Your task to perform on an android device: delete a single message in the gmail app Image 0: 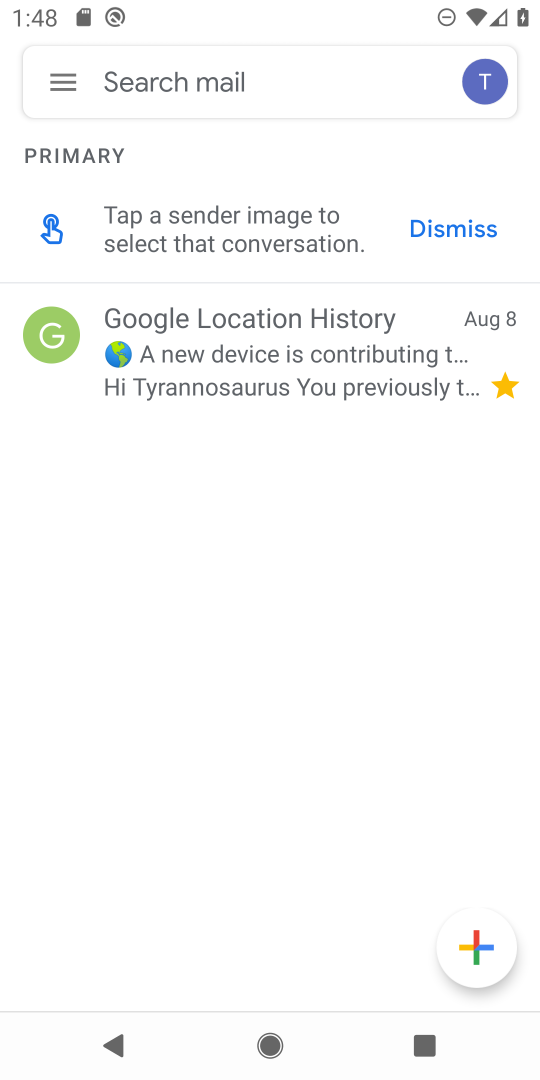
Step 0: press home button
Your task to perform on an android device: delete a single message in the gmail app Image 1: 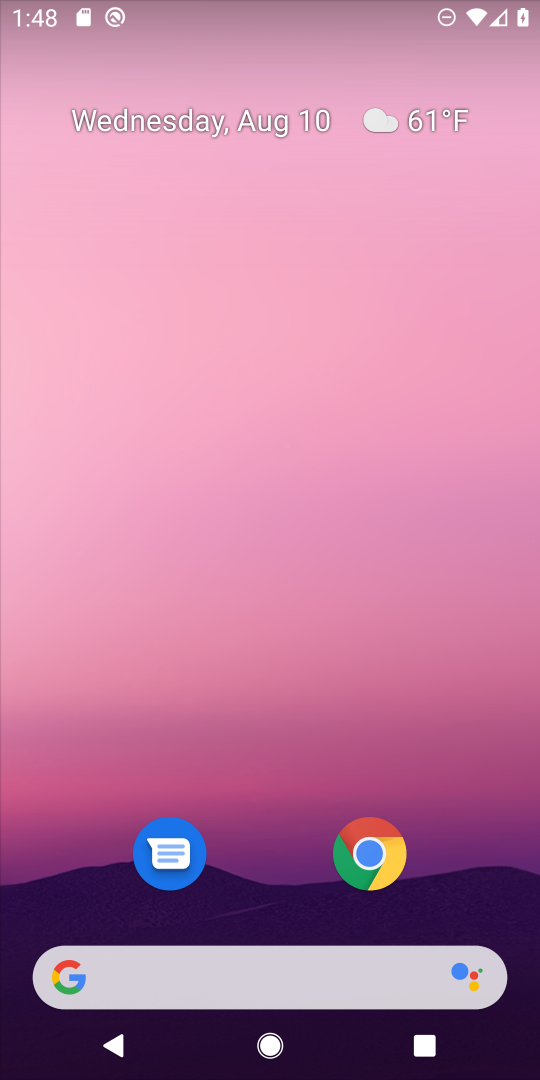
Step 1: drag from (328, 700) to (359, 243)
Your task to perform on an android device: delete a single message in the gmail app Image 2: 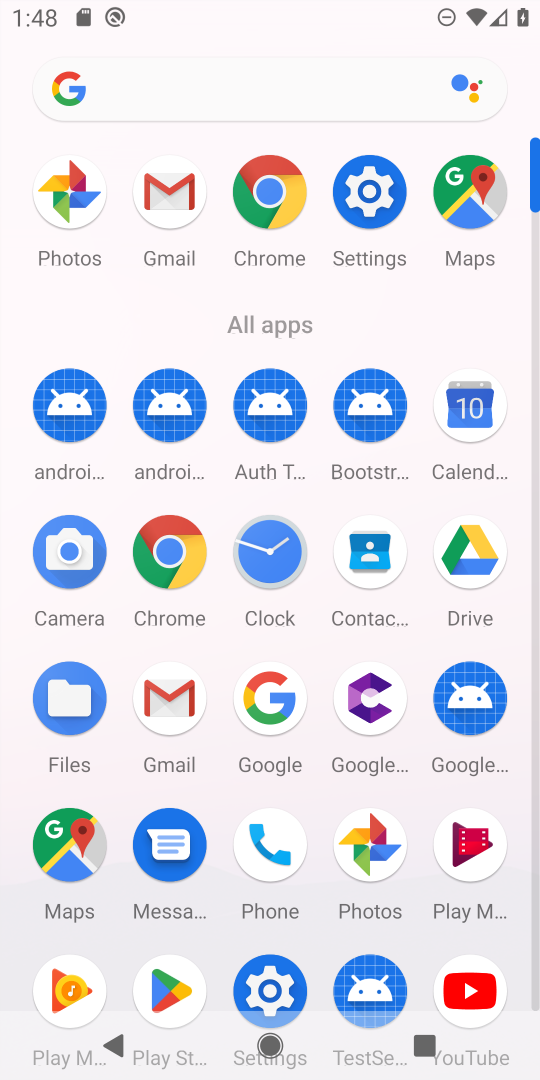
Step 2: click (174, 679)
Your task to perform on an android device: delete a single message in the gmail app Image 3: 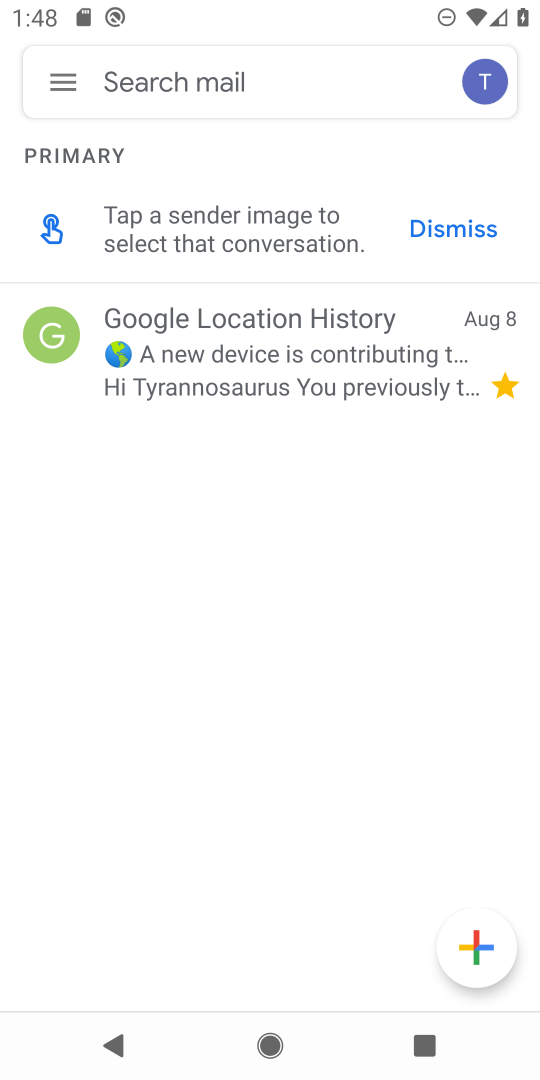
Step 3: click (51, 349)
Your task to perform on an android device: delete a single message in the gmail app Image 4: 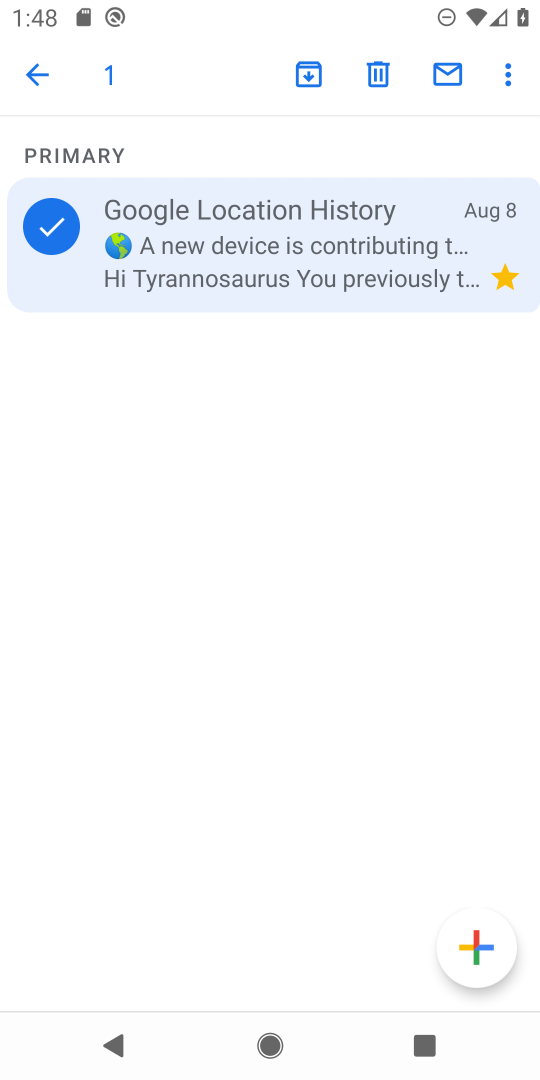
Step 4: click (378, 75)
Your task to perform on an android device: delete a single message in the gmail app Image 5: 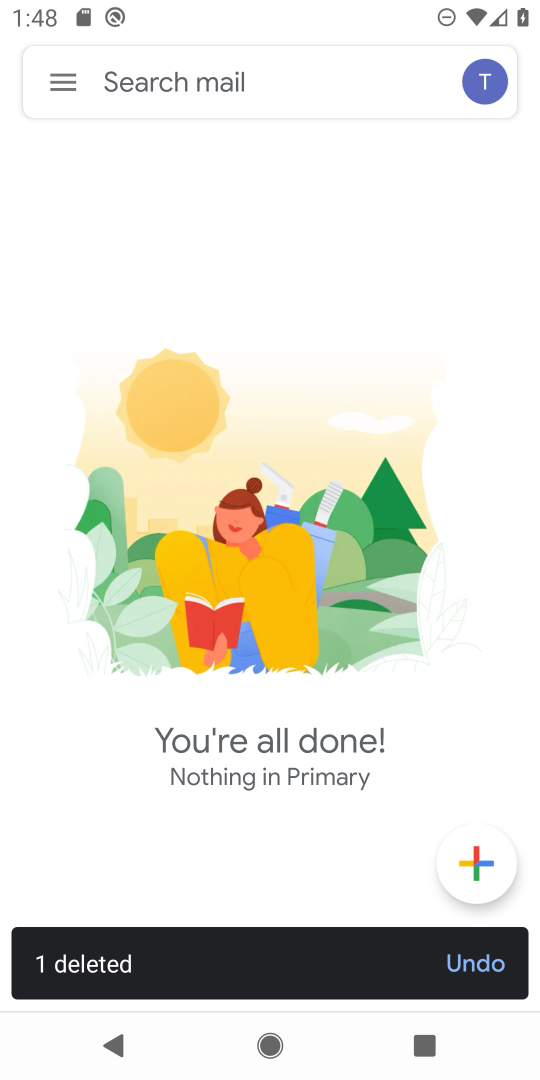
Step 5: task complete